Your task to perform on an android device: Open the calendar app, open the side menu, and click the "Day" option Image 0: 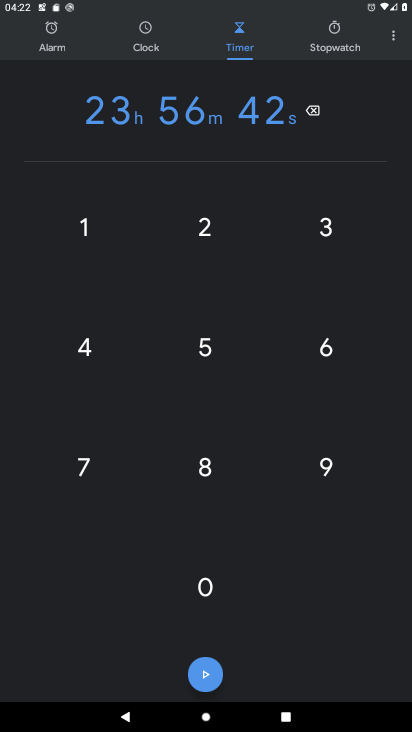
Step 0: press home button
Your task to perform on an android device: Open the calendar app, open the side menu, and click the "Day" option Image 1: 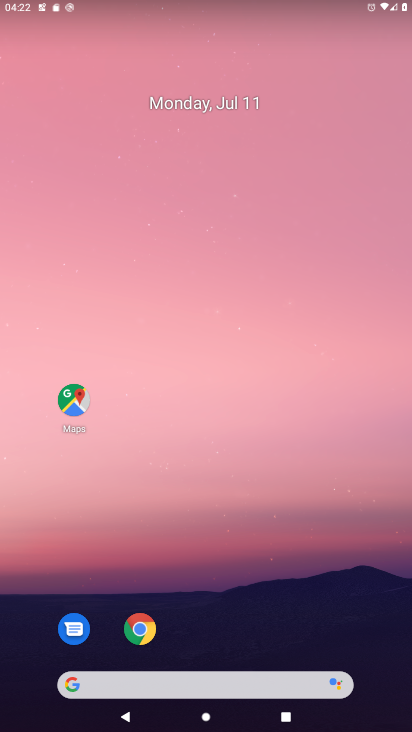
Step 1: drag from (246, 604) to (344, 43)
Your task to perform on an android device: Open the calendar app, open the side menu, and click the "Day" option Image 2: 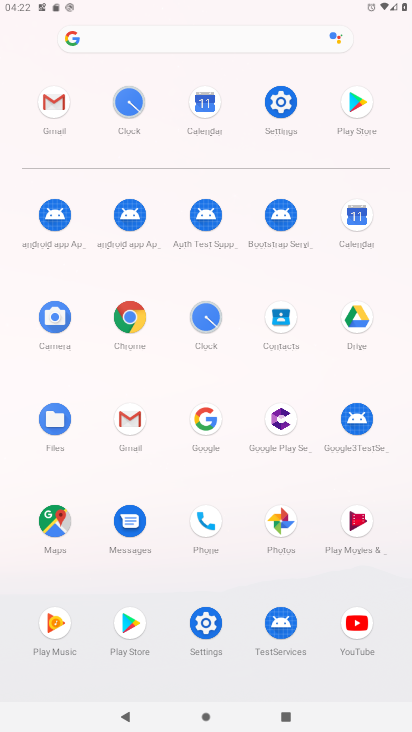
Step 2: click (363, 215)
Your task to perform on an android device: Open the calendar app, open the side menu, and click the "Day" option Image 3: 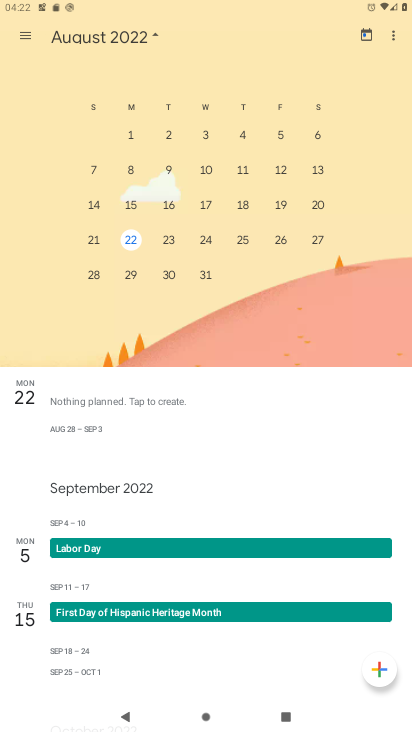
Step 3: click (25, 37)
Your task to perform on an android device: Open the calendar app, open the side menu, and click the "Day" option Image 4: 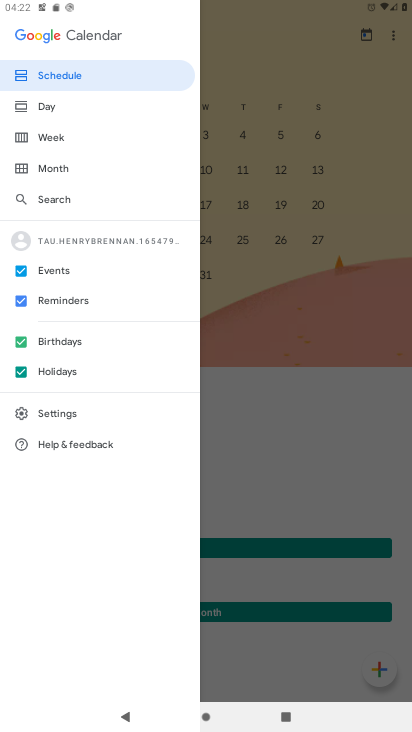
Step 4: click (41, 108)
Your task to perform on an android device: Open the calendar app, open the side menu, and click the "Day" option Image 5: 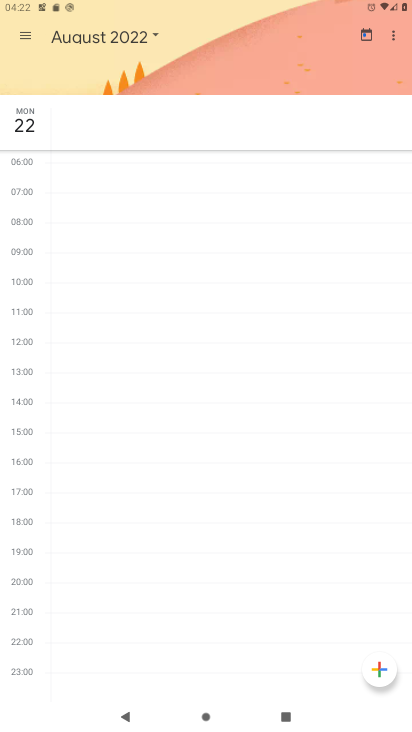
Step 5: task complete